Your task to perform on an android device: Open Yahoo.com Image 0: 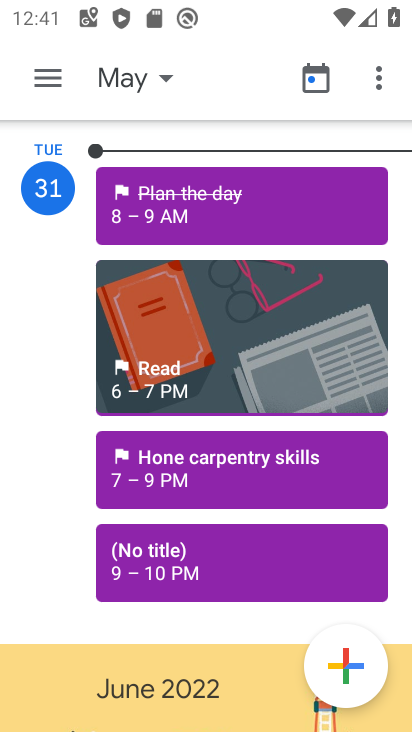
Step 0: press home button
Your task to perform on an android device: Open Yahoo.com Image 1: 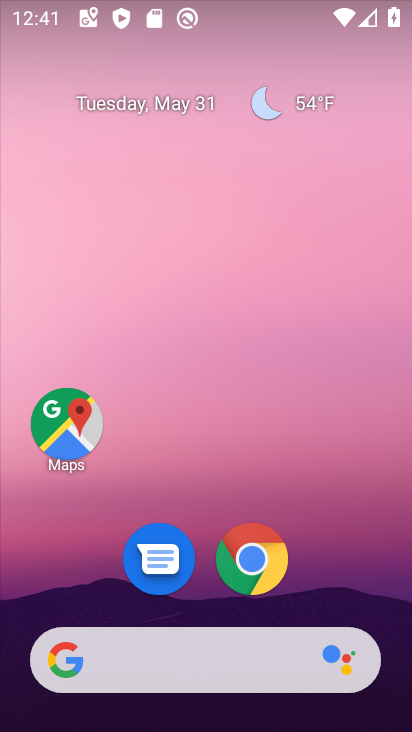
Step 1: click (250, 568)
Your task to perform on an android device: Open Yahoo.com Image 2: 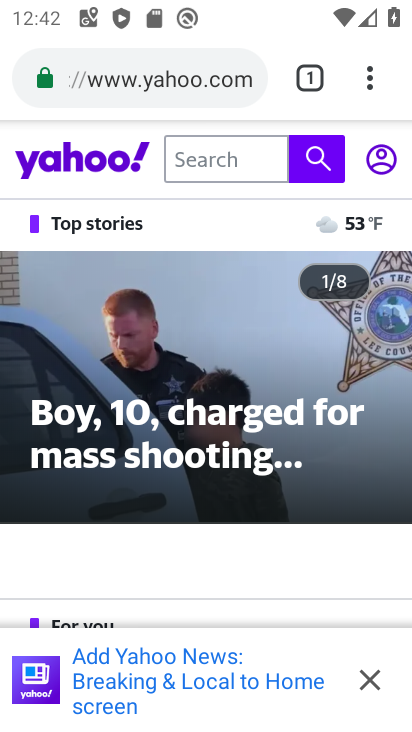
Step 2: task complete